Your task to perform on an android device: check data usage Image 0: 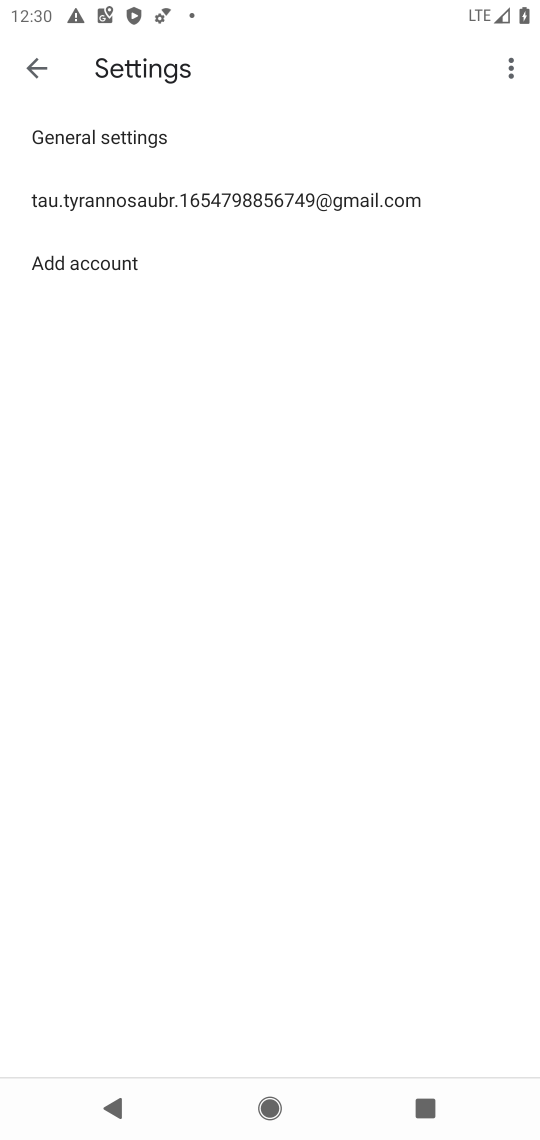
Step 0: press home button
Your task to perform on an android device: check data usage Image 1: 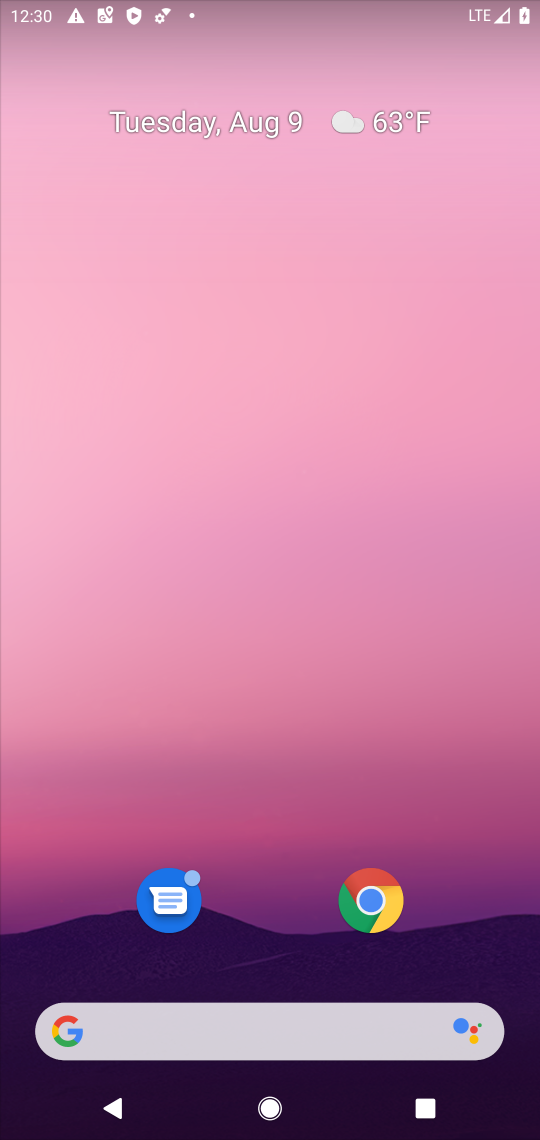
Step 1: drag from (467, 809) to (457, 111)
Your task to perform on an android device: check data usage Image 2: 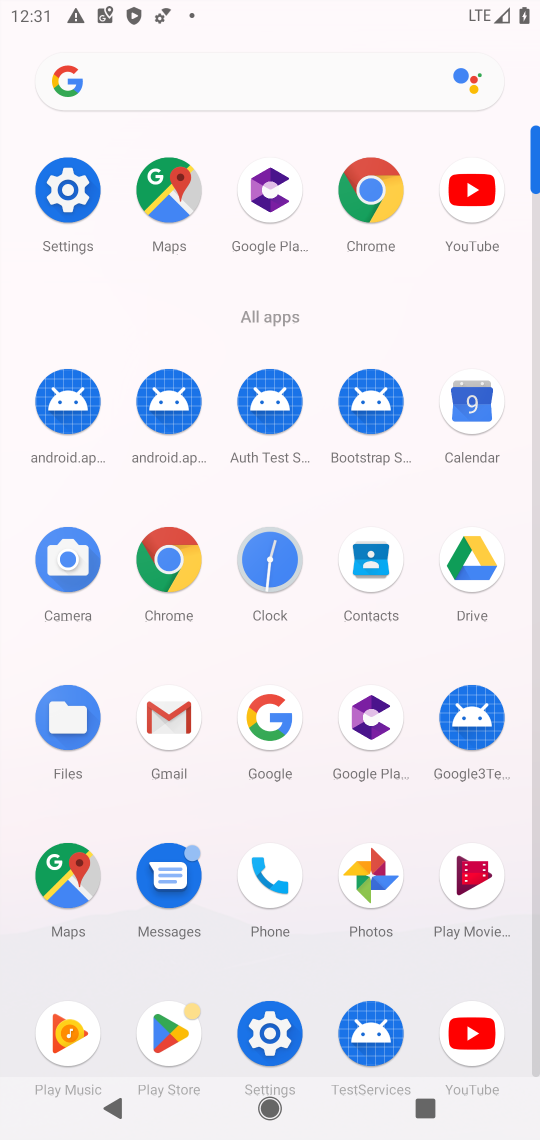
Step 2: click (67, 191)
Your task to perform on an android device: check data usage Image 3: 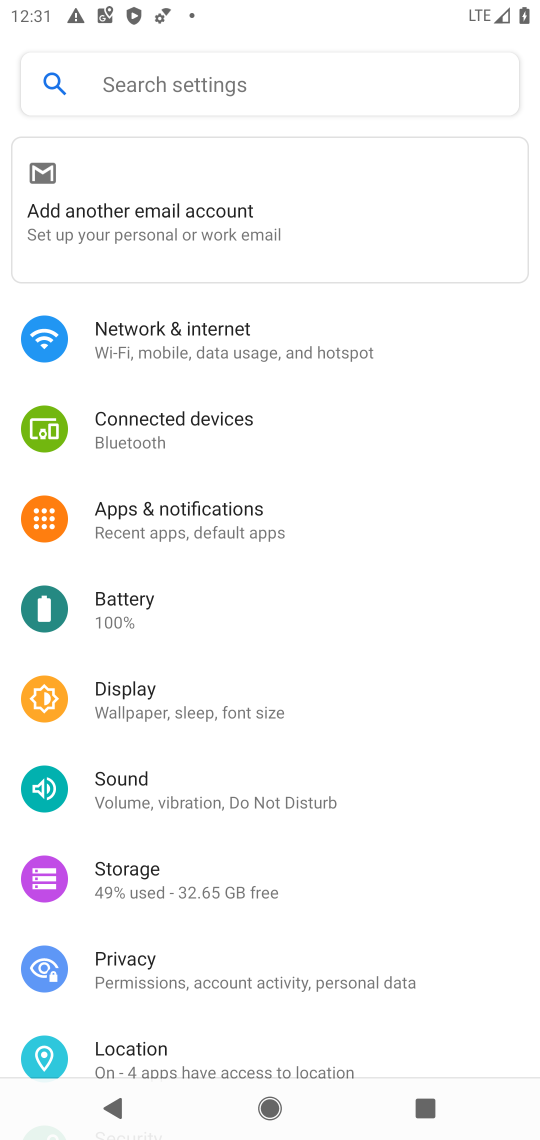
Step 3: click (308, 339)
Your task to perform on an android device: check data usage Image 4: 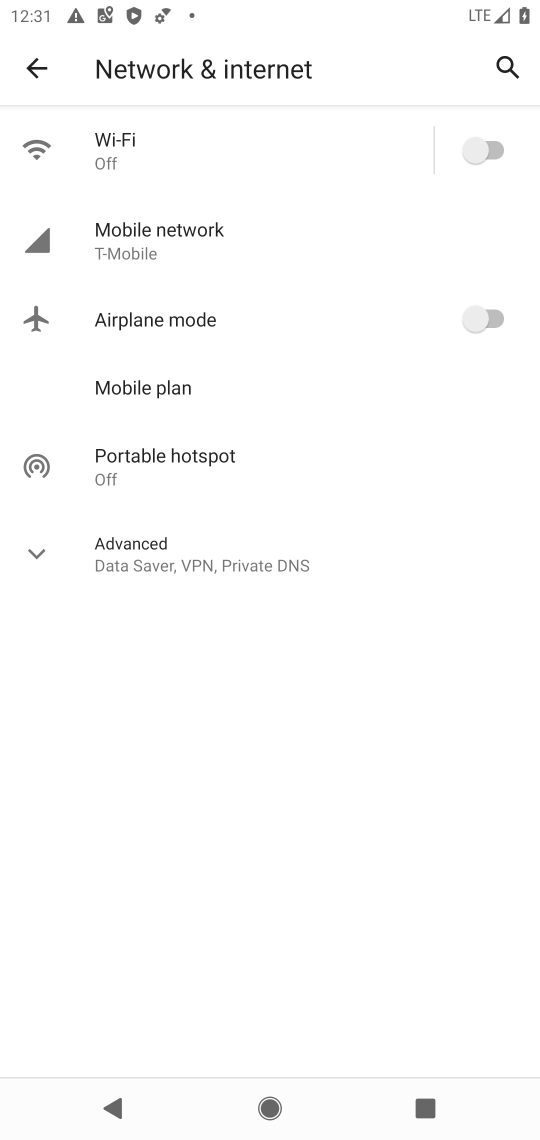
Step 4: click (260, 248)
Your task to perform on an android device: check data usage Image 5: 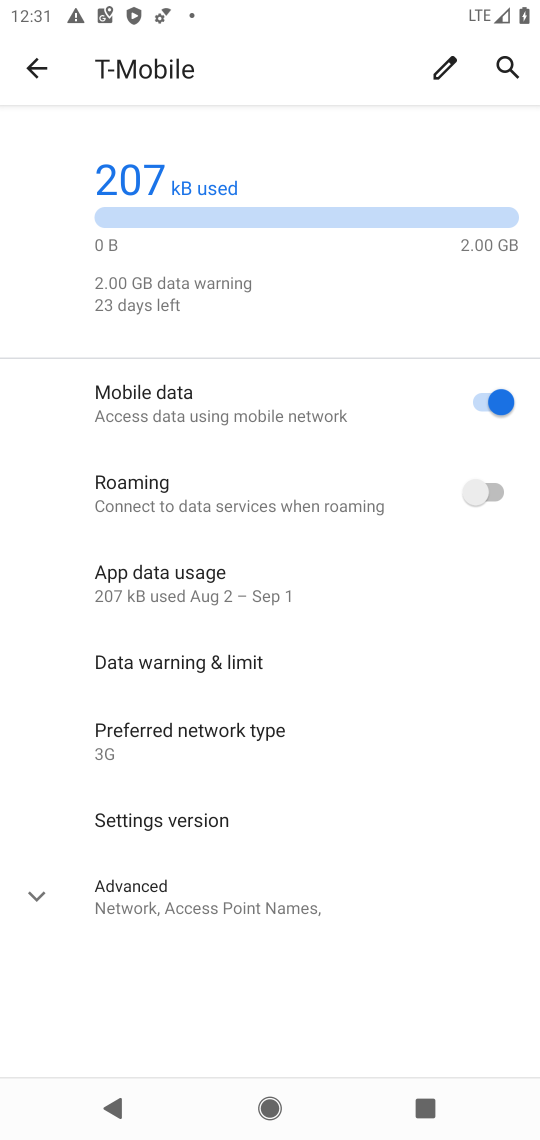
Step 5: click (255, 576)
Your task to perform on an android device: check data usage Image 6: 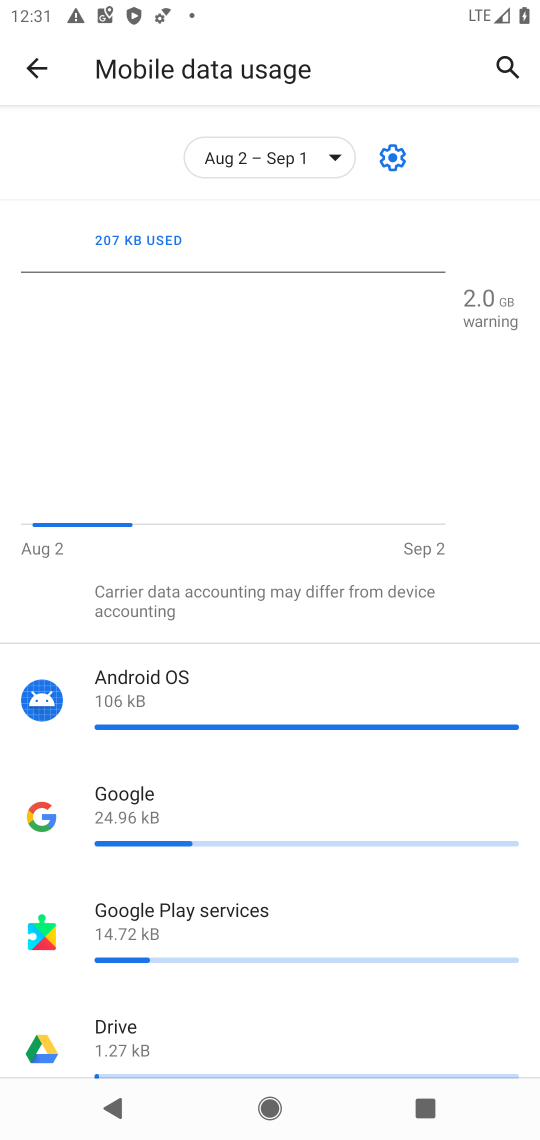
Step 6: task complete